Your task to perform on an android device: toggle translation in the chrome app Image 0: 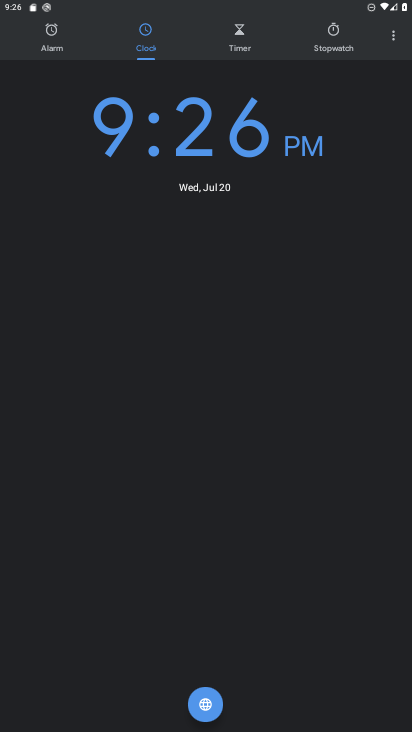
Step 0: press home button
Your task to perform on an android device: toggle translation in the chrome app Image 1: 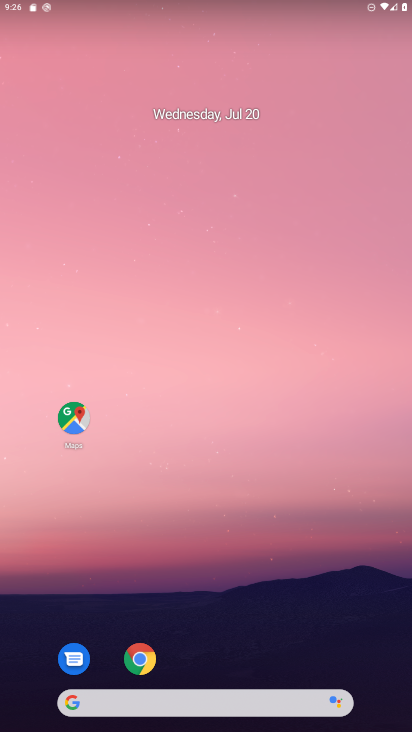
Step 1: drag from (325, 730) to (245, 30)
Your task to perform on an android device: toggle translation in the chrome app Image 2: 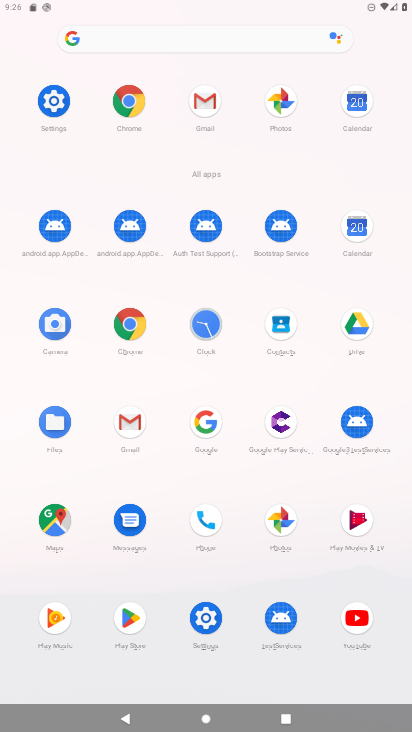
Step 2: click (131, 97)
Your task to perform on an android device: toggle translation in the chrome app Image 3: 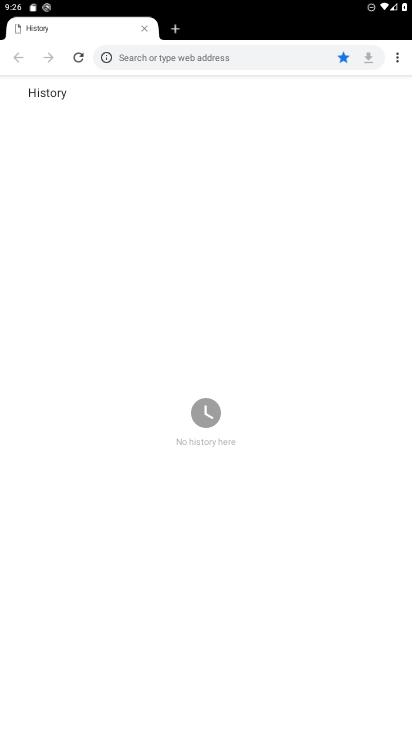
Step 3: drag from (397, 55) to (296, 274)
Your task to perform on an android device: toggle translation in the chrome app Image 4: 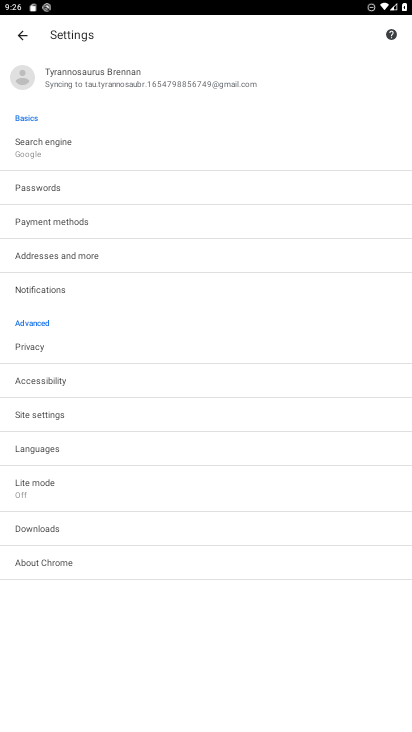
Step 4: click (41, 455)
Your task to perform on an android device: toggle translation in the chrome app Image 5: 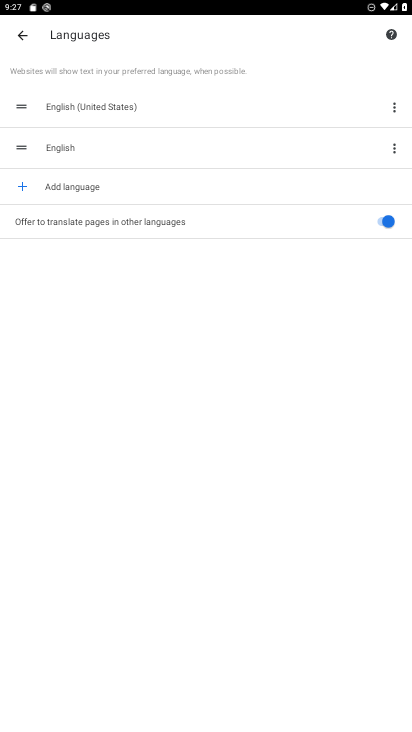
Step 5: click (370, 218)
Your task to perform on an android device: toggle translation in the chrome app Image 6: 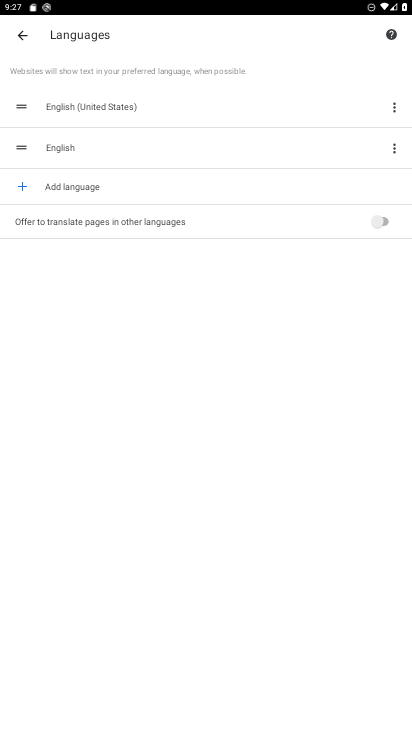
Step 6: task complete